Your task to perform on an android device: toggle translation in the chrome app Image 0: 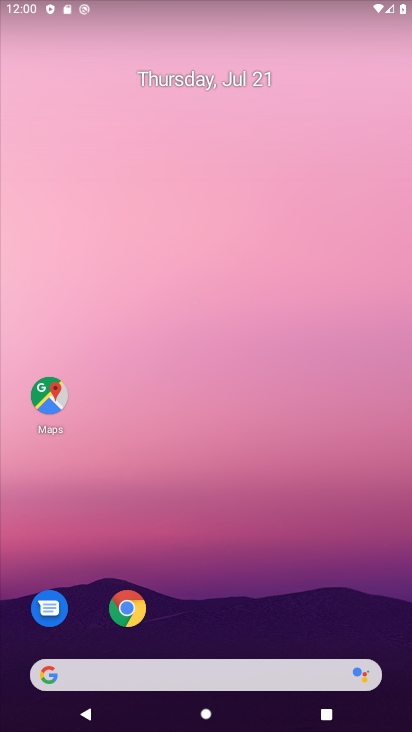
Step 0: click (125, 601)
Your task to perform on an android device: toggle translation in the chrome app Image 1: 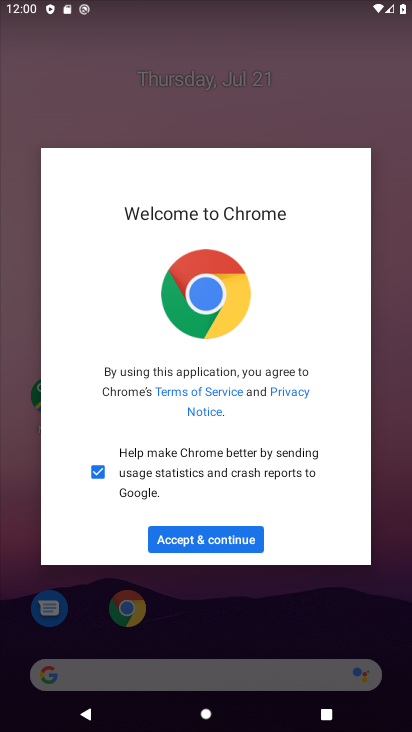
Step 1: click (220, 542)
Your task to perform on an android device: toggle translation in the chrome app Image 2: 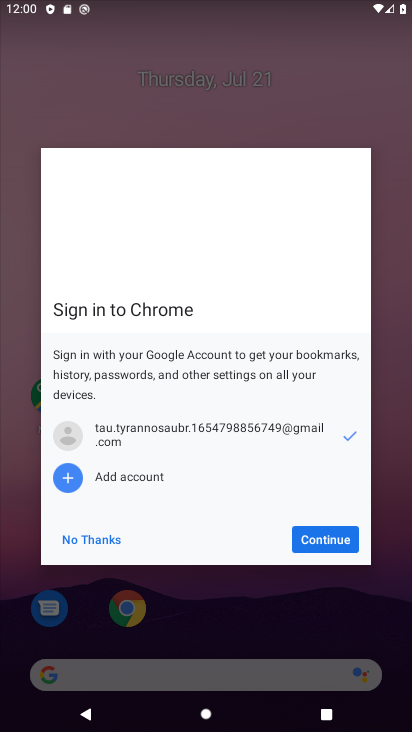
Step 2: click (335, 538)
Your task to perform on an android device: toggle translation in the chrome app Image 3: 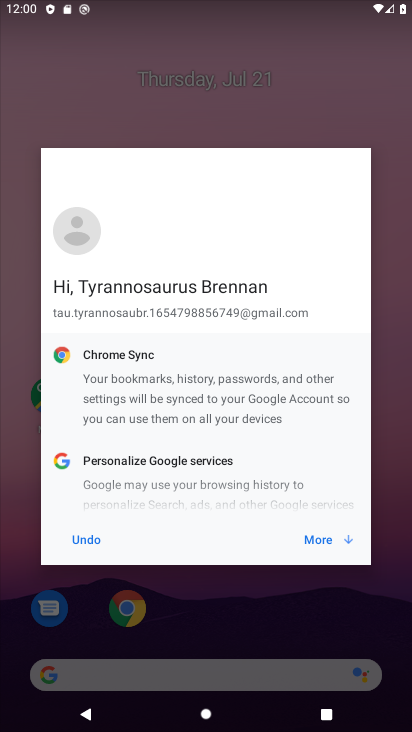
Step 3: click (336, 538)
Your task to perform on an android device: toggle translation in the chrome app Image 4: 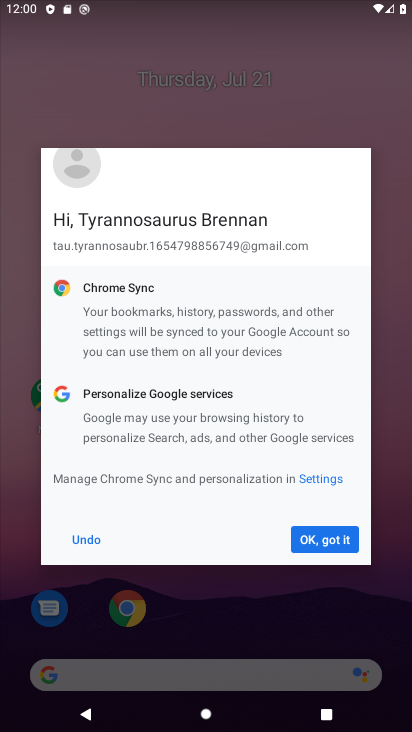
Step 4: click (310, 543)
Your task to perform on an android device: toggle translation in the chrome app Image 5: 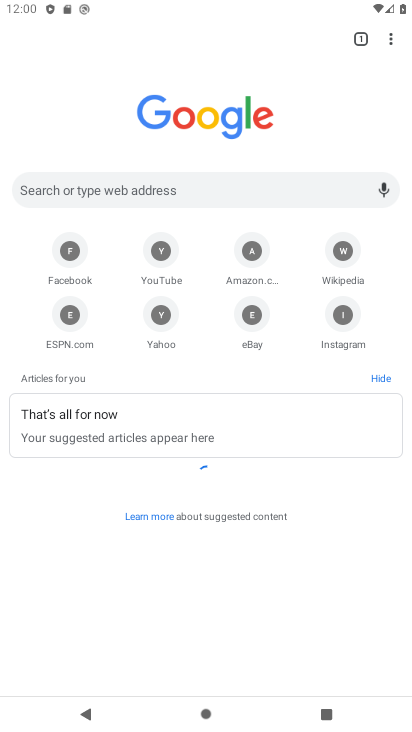
Step 5: click (384, 38)
Your task to perform on an android device: toggle translation in the chrome app Image 6: 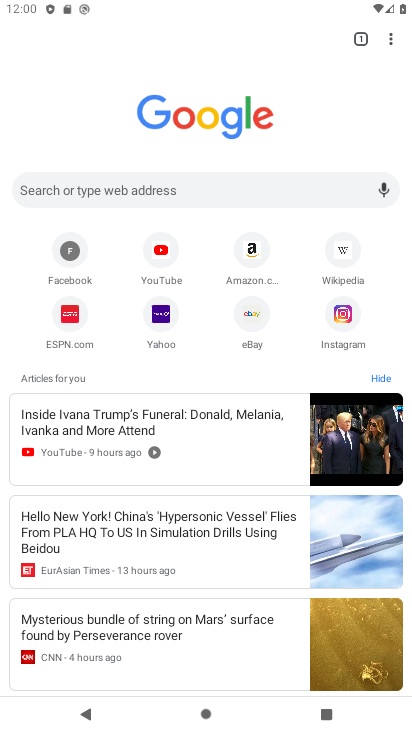
Step 6: click (388, 34)
Your task to perform on an android device: toggle translation in the chrome app Image 7: 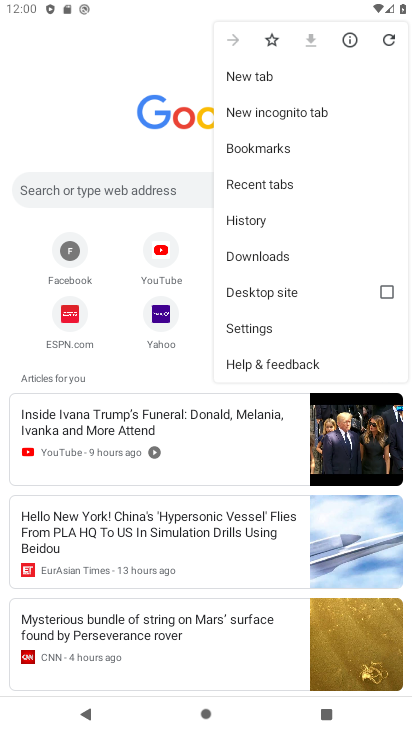
Step 7: click (261, 327)
Your task to perform on an android device: toggle translation in the chrome app Image 8: 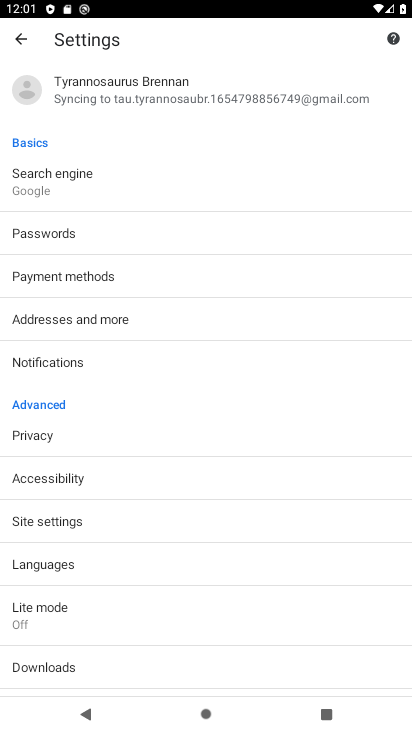
Step 8: click (80, 564)
Your task to perform on an android device: toggle translation in the chrome app Image 9: 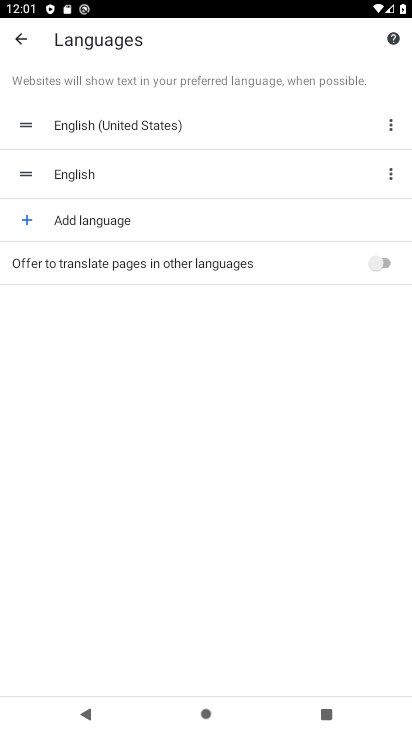
Step 9: click (389, 265)
Your task to perform on an android device: toggle translation in the chrome app Image 10: 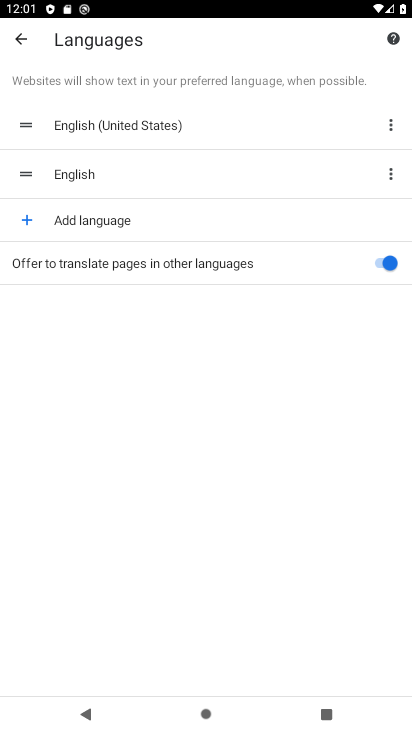
Step 10: task complete